Your task to perform on an android device: open sync settings in chrome Image 0: 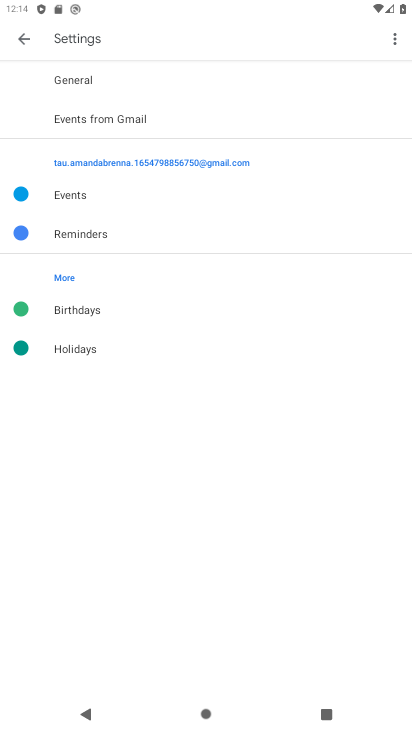
Step 0: press home button
Your task to perform on an android device: open sync settings in chrome Image 1: 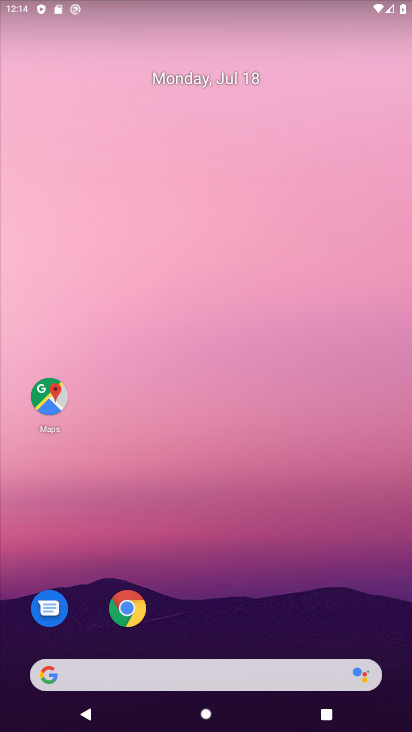
Step 1: drag from (328, 570) to (372, 99)
Your task to perform on an android device: open sync settings in chrome Image 2: 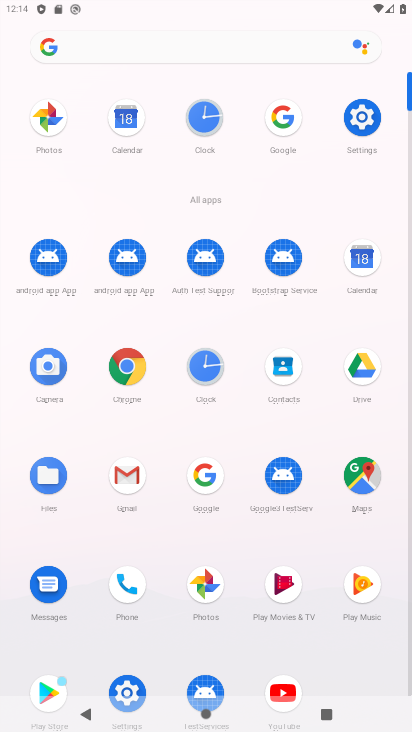
Step 2: click (134, 381)
Your task to perform on an android device: open sync settings in chrome Image 3: 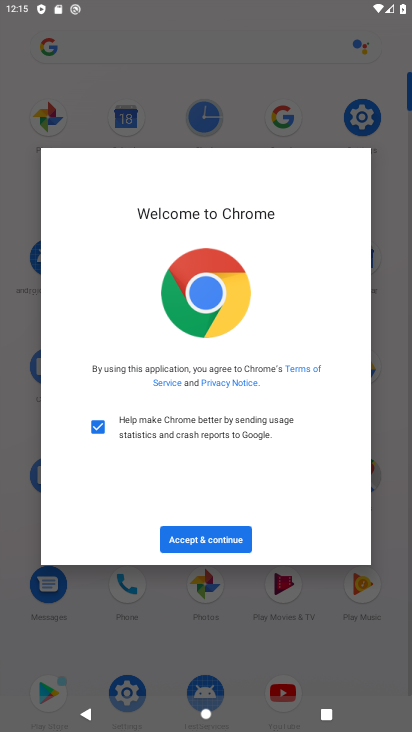
Step 3: click (215, 538)
Your task to perform on an android device: open sync settings in chrome Image 4: 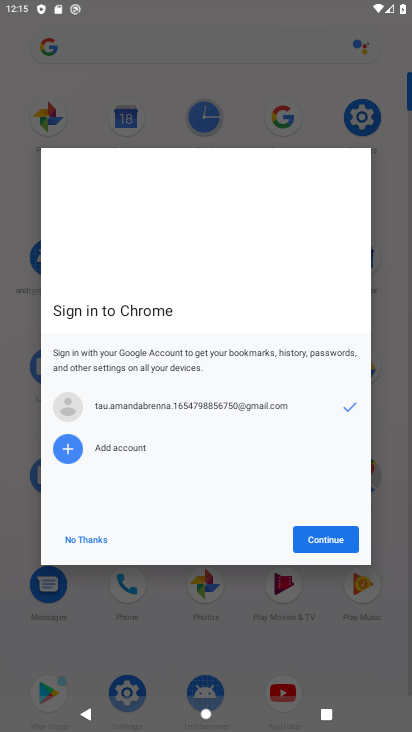
Step 4: click (99, 541)
Your task to perform on an android device: open sync settings in chrome Image 5: 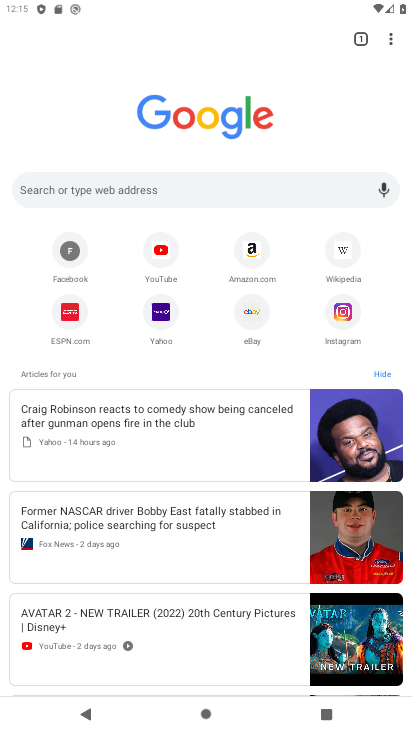
Step 5: drag from (396, 32) to (258, 328)
Your task to perform on an android device: open sync settings in chrome Image 6: 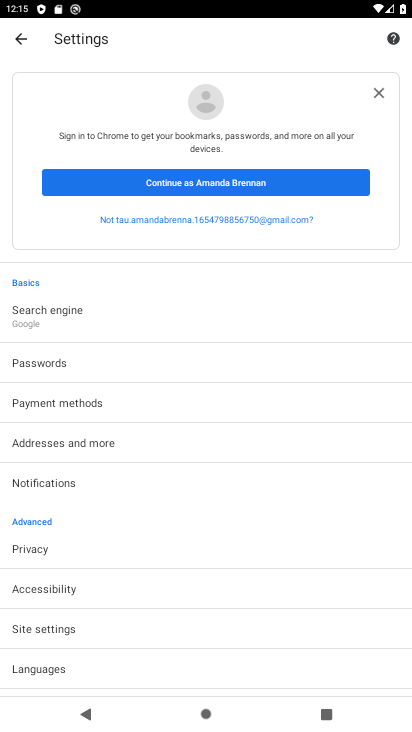
Step 6: drag from (140, 600) to (184, 289)
Your task to perform on an android device: open sync settings in chrome Image 7: 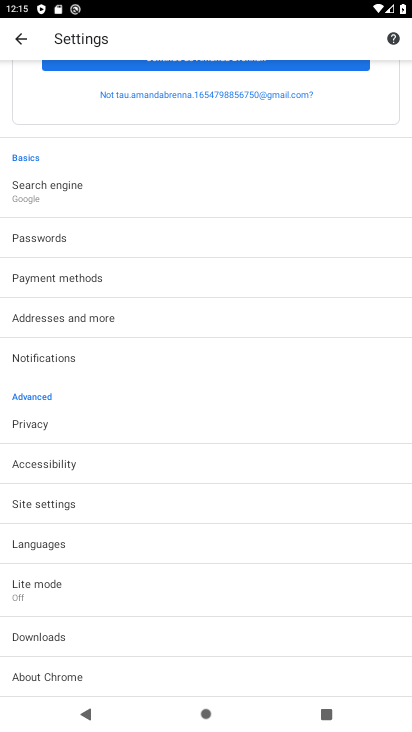
Step 7: click (67, 509)
Your task to perform on an android device: open sync settings in chrome Image 8: 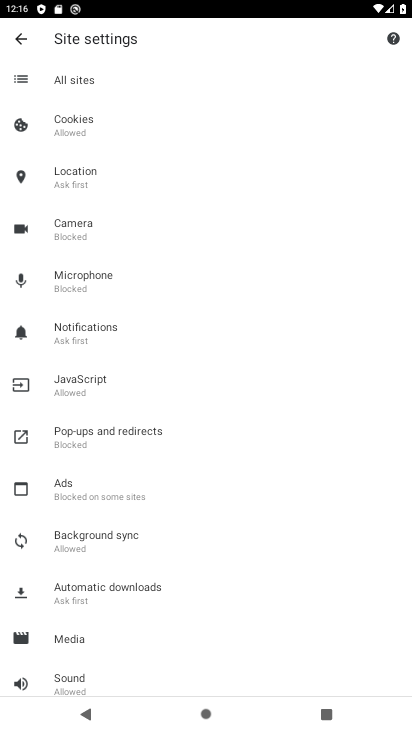
Step 8: click (109, 543)
Your task to perform on an android device: open sync settings in chrome Image 9: 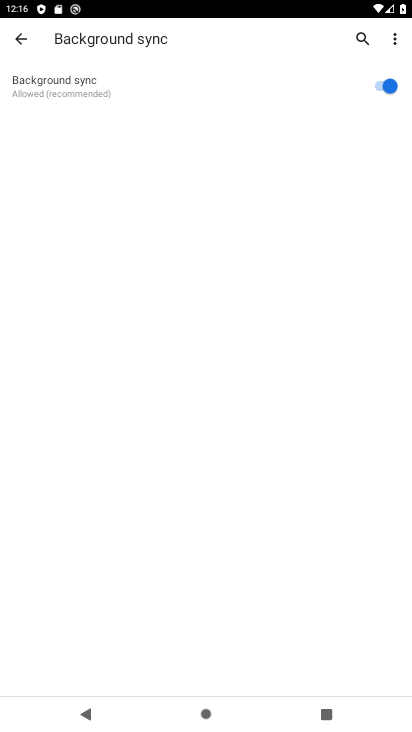
Step 9: task complete